Your task to perform on an android device: Open Google Chrome Image 0: 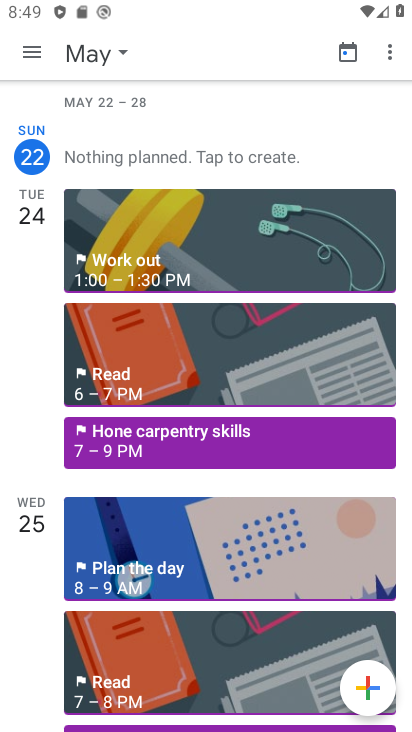
Step 0: press home button
Your task to perform on an android device: Open Google Chrome Image 1: 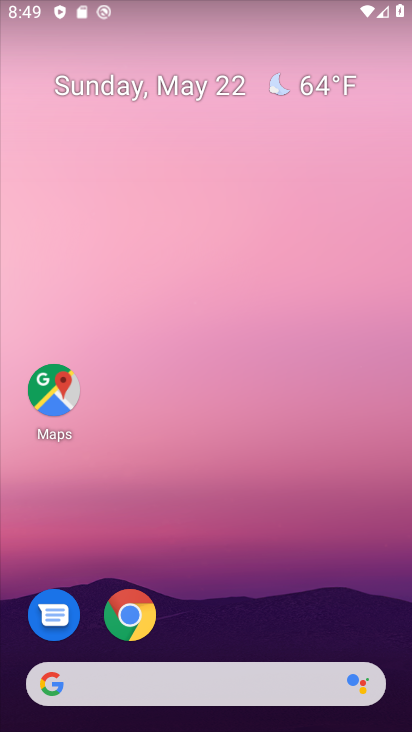
Step 1: click (144, 635)
Your task to perform on an android device: Open Google Chrome Image 2: 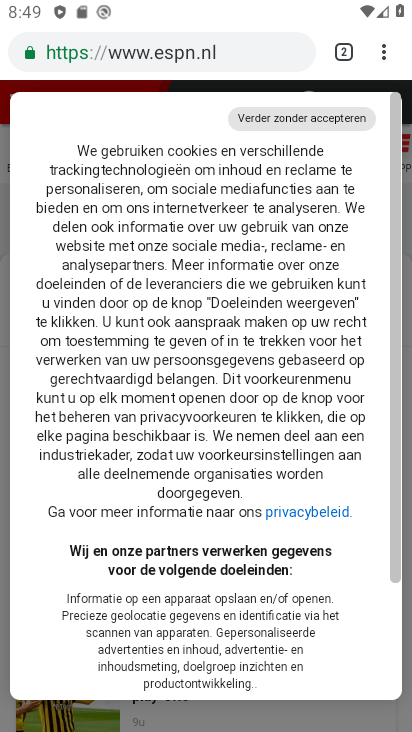
Step 2: task complete